Your task to perform on an android device: How old is the earth? Image 0: 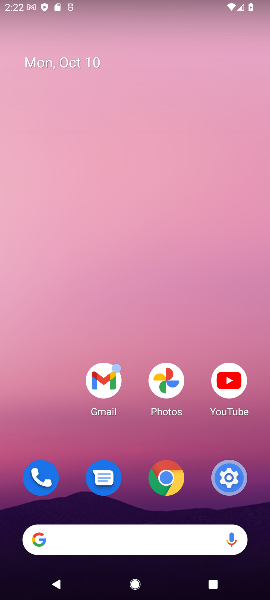
Step 0: click (164, 476)
Your task to perform on an android device: How old is the earth? Image 1: 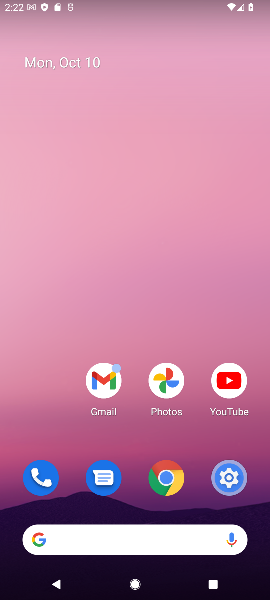
Step 1: click (164, 476)
Your task to perform on an android device: How old is the earth? Image 2: 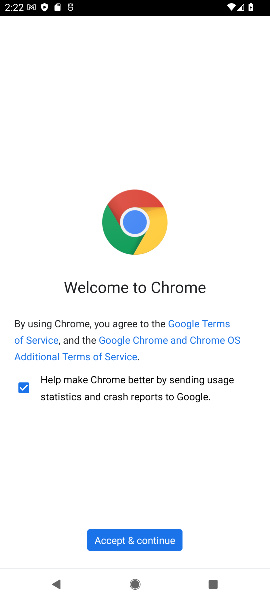
Step 2: click (165, 537)
Your task to perform on an android device: How old is the earth? Image 3: 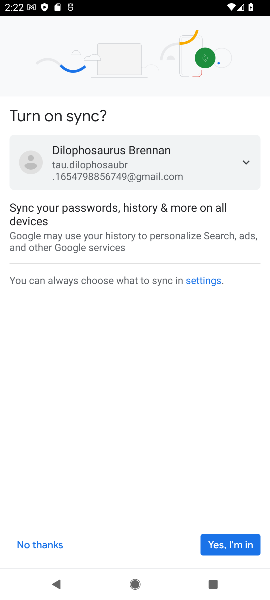
Step 3: click (208, 548)
Your task to perform on an android device: How old is the earth? Image 4: 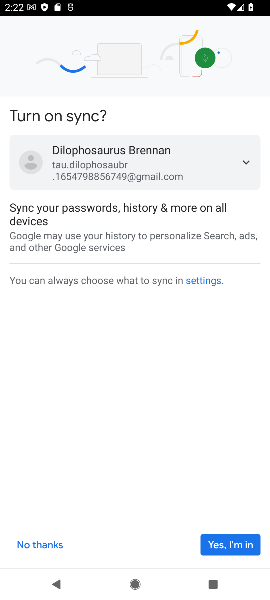
Step 4: click (218, 550)
Your task to perform on an android device: How old is the earth? Image 5: 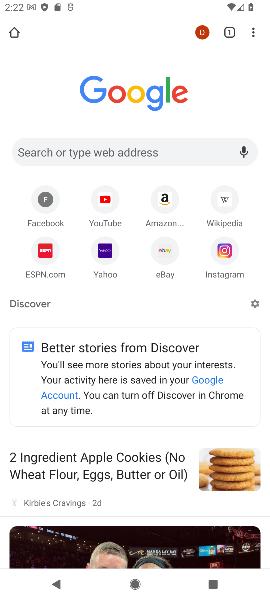
Step 5: click (179, 147)
Your task to perform on an android device: How old is the earth? Image 6: 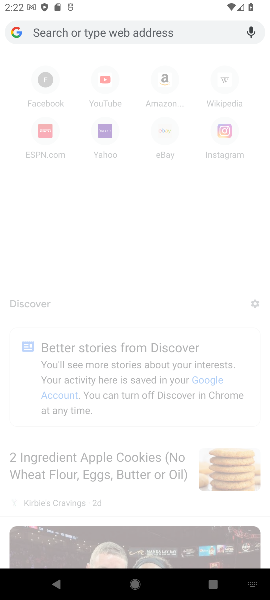
Step 6: type "How old is the earth?"
Your task to perform on an android device: How old is the earth? Image 7: 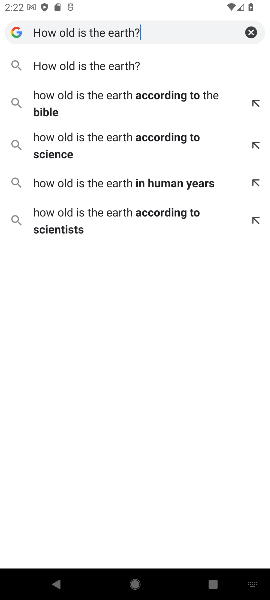
Step 7: click (112, 69)
Your task to perform on an android device: How old is the earth? Image 8: 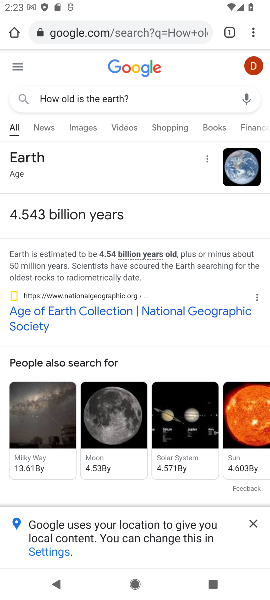
Step 8: click (112, 69)
Your task to perform on an android device: How old is the earth? Image 9: 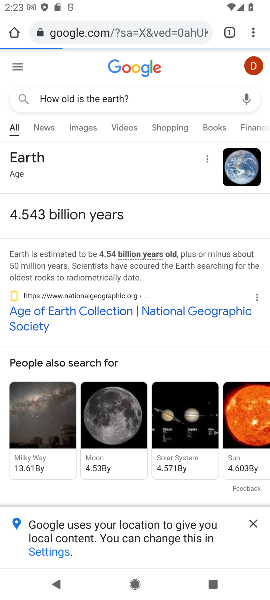
Step 9: task complete